Your task to perform on an android device: turn on bluetooth scan Image 0: 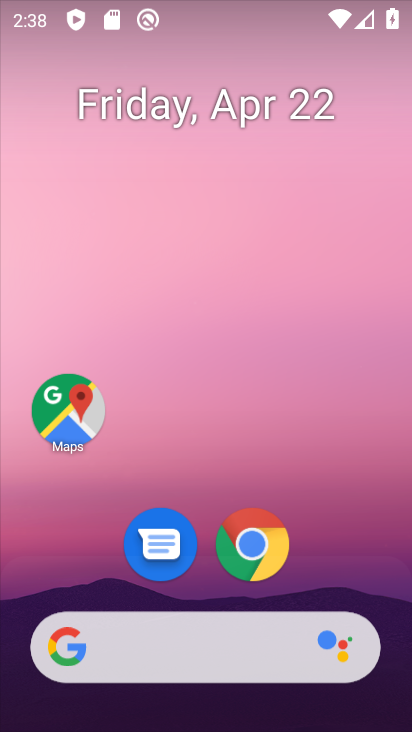
Step 0: drag from (340, 545) to (340, 199)
Your task to perform on an android device: turn on bluetooth scan Image 1: 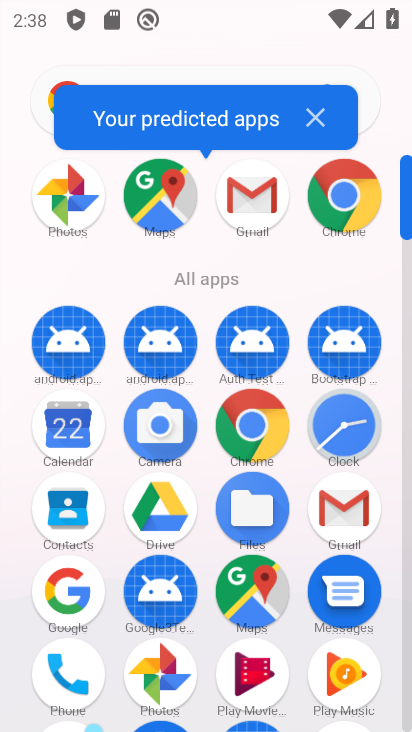
Step 1: drag from (299, 551) to (334, 216)
Your task to perform on an android device: turn on bluetooth scan Image 2: 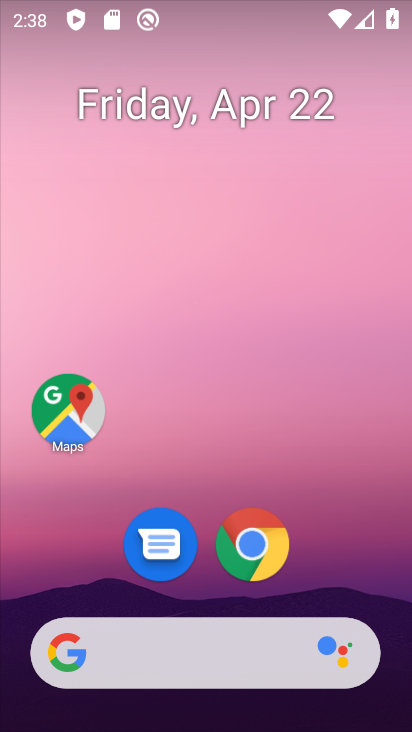
Step 2: click (325, 536)
Your task to perform on an android device: turn on bluetooth scan Image 3: 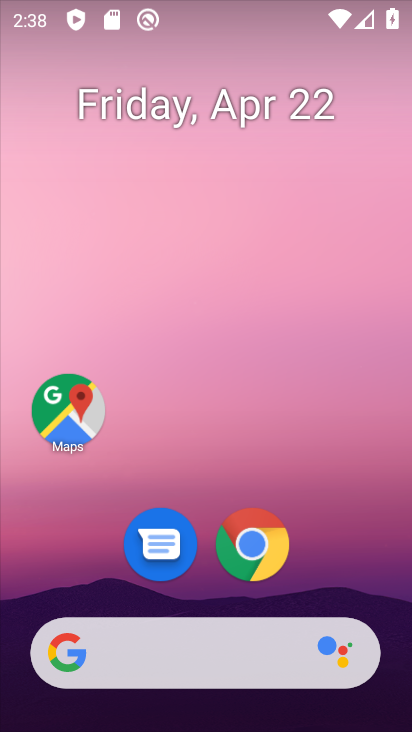
Step 3: drag from (325, 531) to (349, 151)
Your task to perform on an android device: turn on bluetooth scan Image 4: 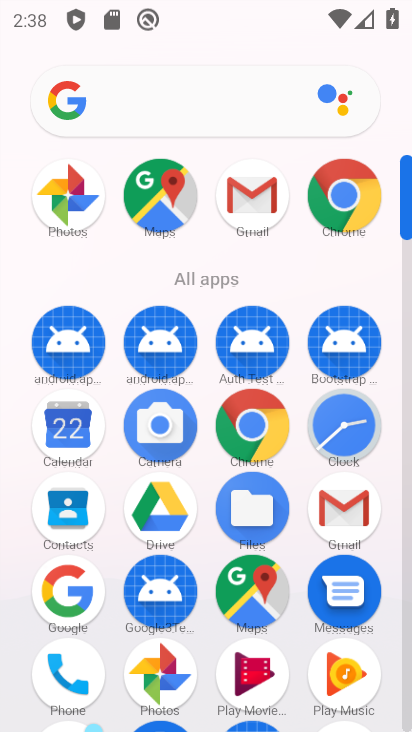
Step 4: drag from (308, 625) to (335, 342)
Your task to perform on an android device: turn on bluetooth scan Image 5: 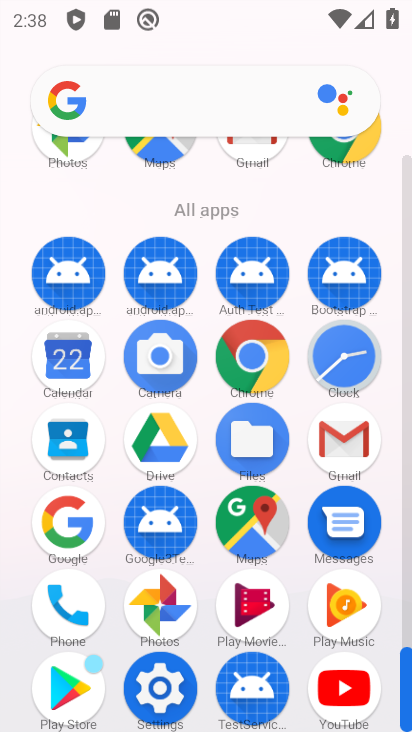
Step 5: click (157, 692)
Your task to perform on an android device: turn on bluetooth scan Image 6: 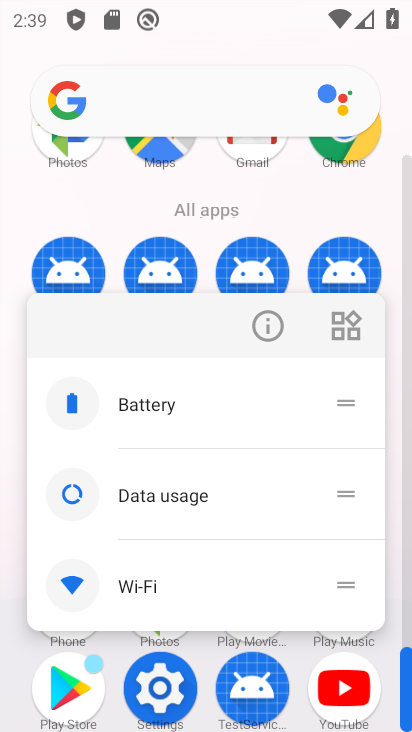
Step 6: click (165, 700)
Your task to perform on an android device: turn on bluetooth scan Image 7: 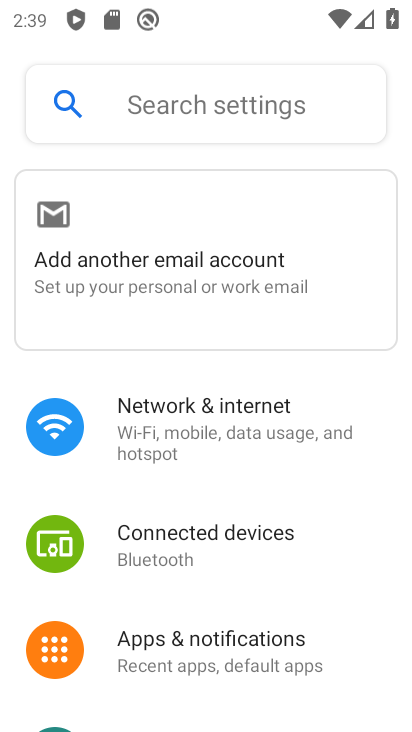
Step 7: drag from (344, 530) to (327, 255)
Your task to perform on an android device: turn on bluetooth scan Image 8: 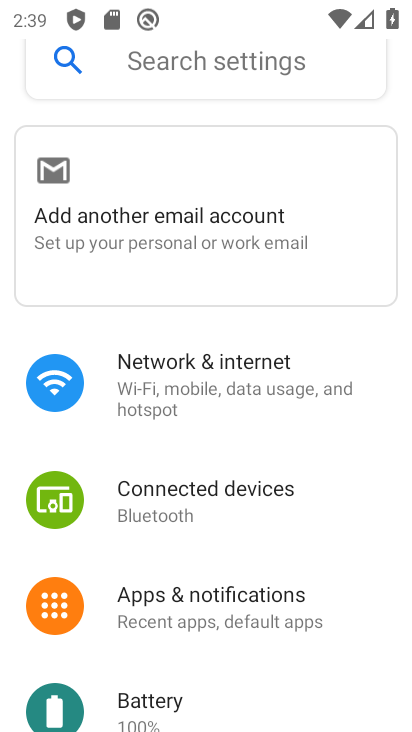
Step 8: drag from (276, 676) to (327, 272)
Your task to perform on an android device: turn on bluetooth scan Image 9: 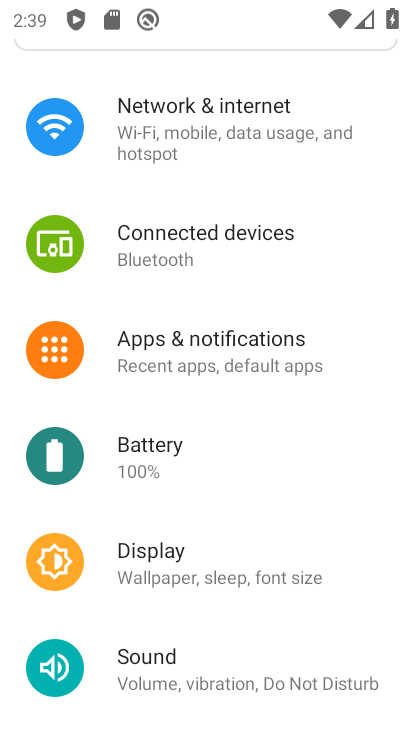
Step 9: drag from (298, 625) to (331, 354)
Your task to perform on an android device: turn on bluetooth scan Image 10: 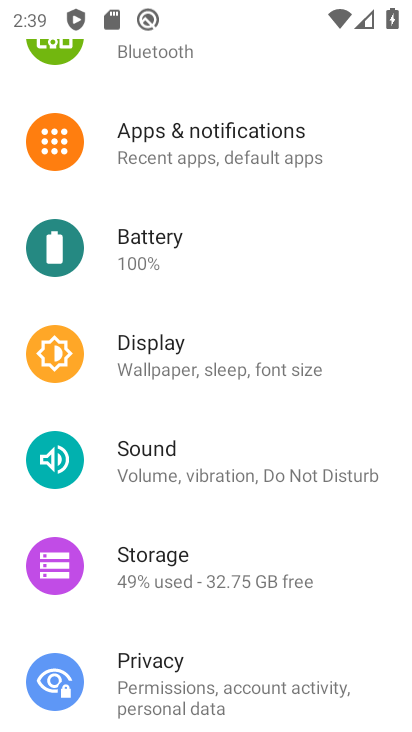
Step 10: drag from (217, 628) to (271, 322)
Your task to perform on an android device: turn on bluetooth scan Image 11: 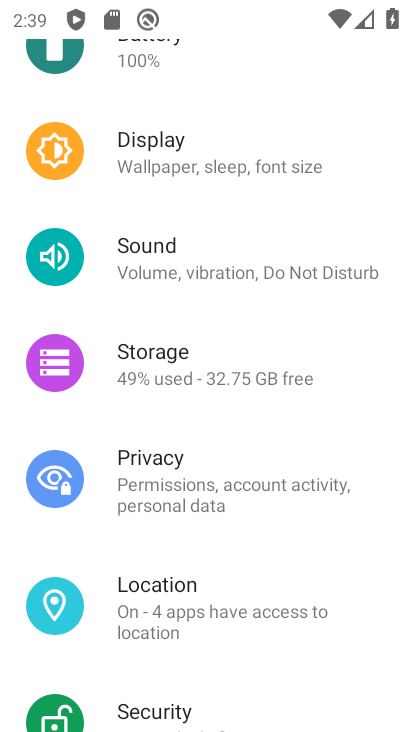
Step 11: click (205, 596)
Your task to perform on an android device: turn on bluetooth scan Image 12: 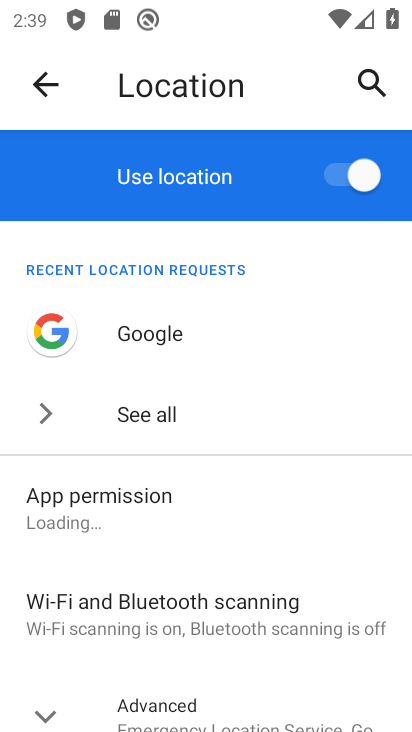
Step 12: drag from (238, 646) to (256, 464)
Your task to perform on an android device: turn on bluetooth scan Image 13: 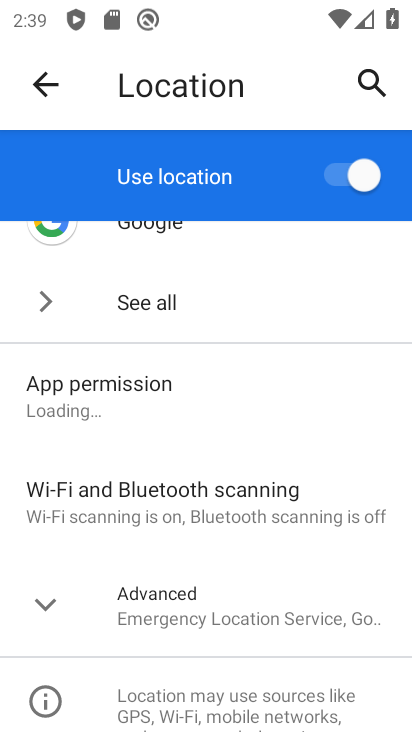
Step 13: click (257, 492)
Your task to perform on an android device: turn on bluetooth scan Image 14: 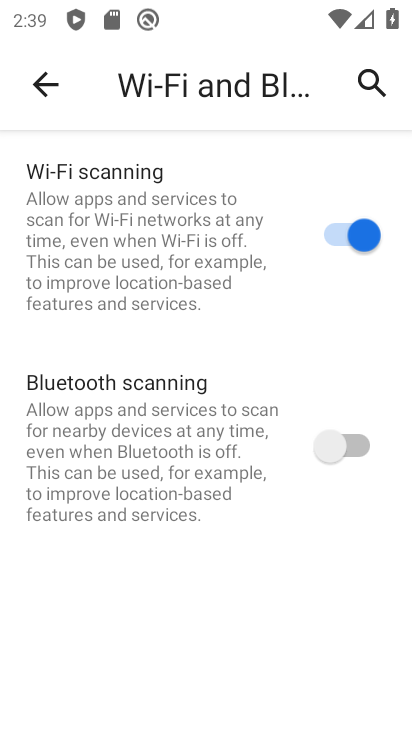
Step 14: click (344, 445)
Your task to perform on an android device: turn on bluetooth scan Image 15: 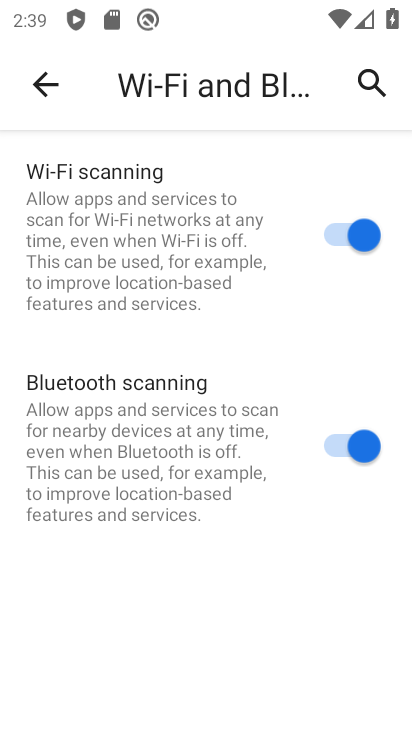
Step 15: task complete